Your task to perform on an android device: delete location history Image 0: 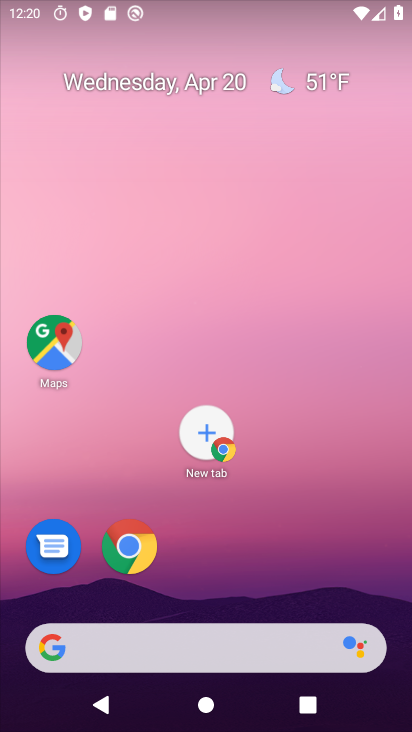
Step 0: click (39, 347)
Your task to perform on an android device: delete location history Image 1: 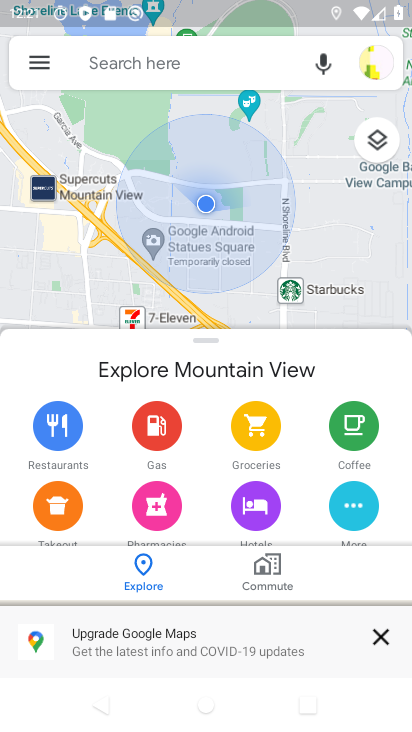
Step 1: click (57, 38)
Your task to perform on an android device: delete location history Image 2: 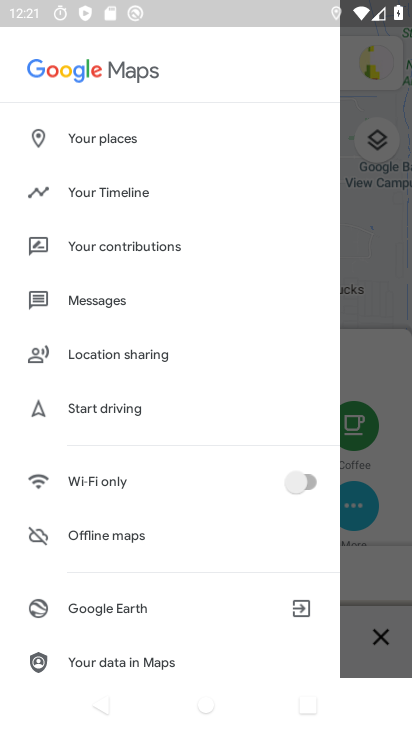
Step 2: click (87, 198)
Your task to perform on an android device: delete location history Image 3: 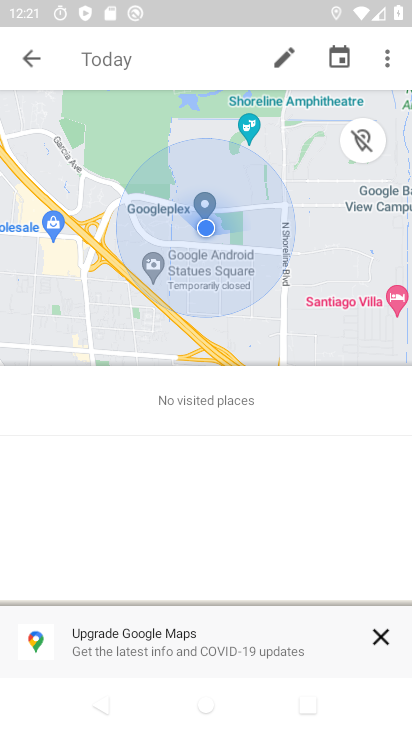
Step 3: click (399, 55)
Your task to perform on an android device: delete location history Image 4: 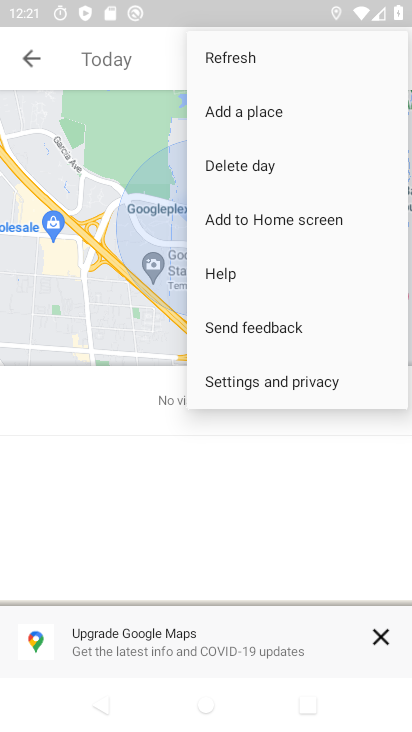
Step 4: click (262, 380)
Your task to perform on an android device: delete location history Image 5: 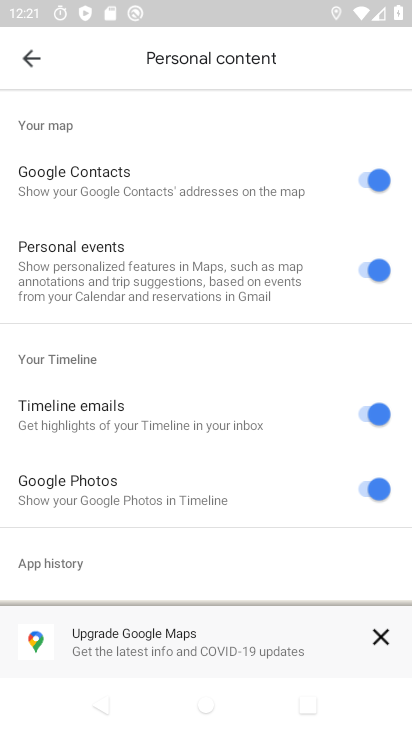
Step 5: drag from (115, 514) to (149, 98)
Your task to perform on an android device: delete location history Image 6: 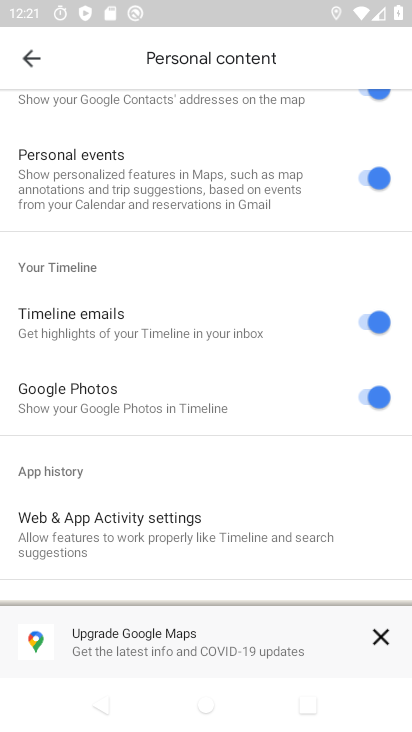
Step 6: drag from (188, 499) to (141, 155)
Your task to perform on an android device: delete location history Image 7: 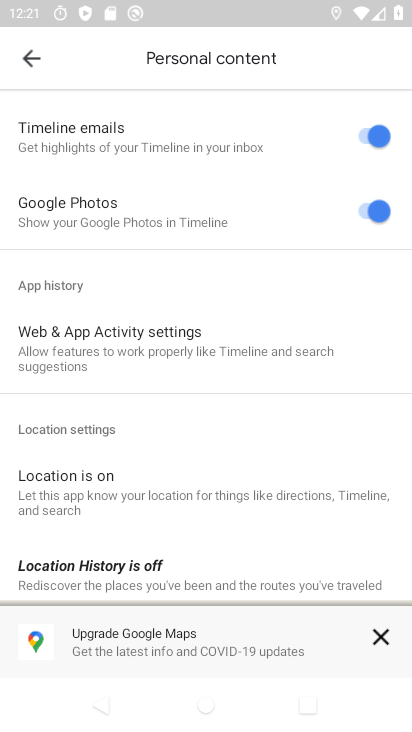
Step 7: drag from (121, 550) to (111, 127)
Your task to perform on an android device: delete location history Image 8: 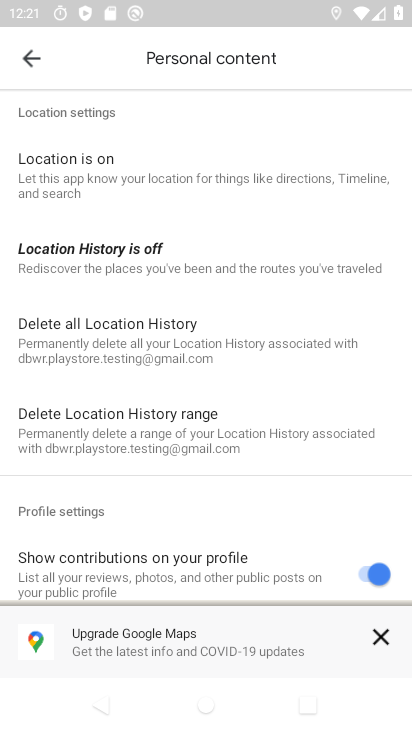
Step 8: click (188, 339)
Your task to perform on an android device: delete location history Image 9: 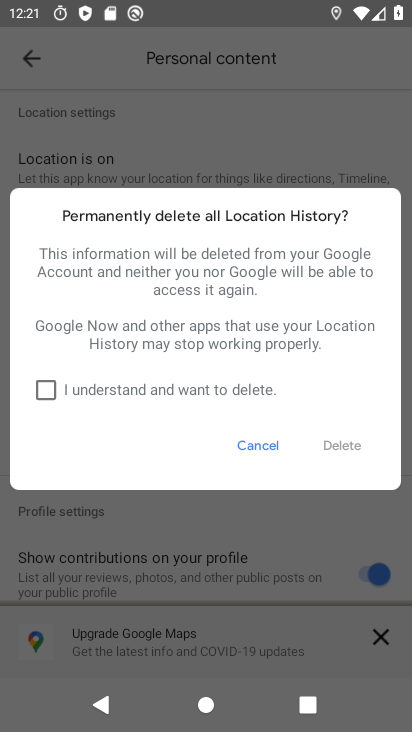
Step 9: click (46, 392)
Your task to perform on an android device: delete location history Image 10: 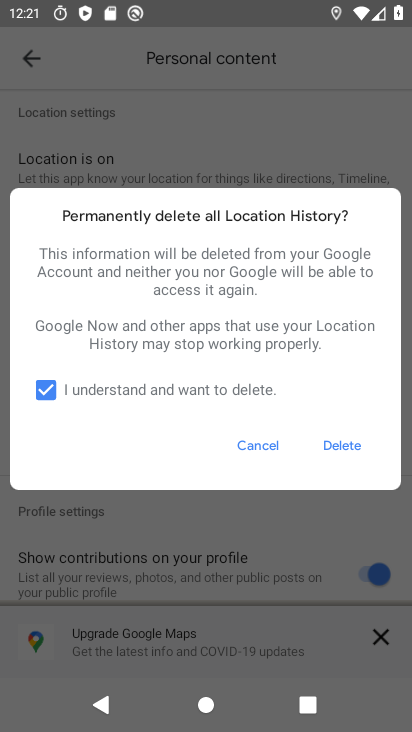
Step 10: click (353, 444)
Your task to perform on an android device: delete location history Image 11: 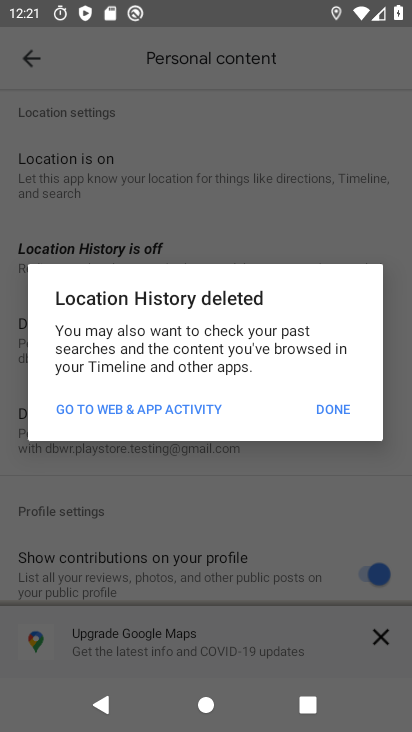
Step 11: click (334, 417)
Your task to perform on an android device: delete location history Image 12: 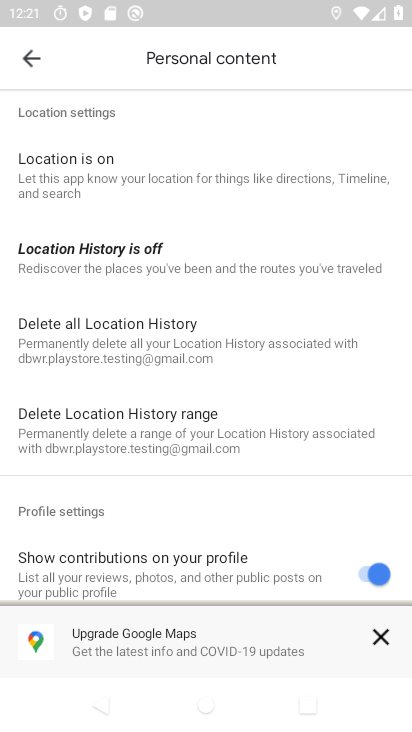
Step 12: task complete